Your task to perform on an android device: turn vacation reply on in the gmail app Image 0: 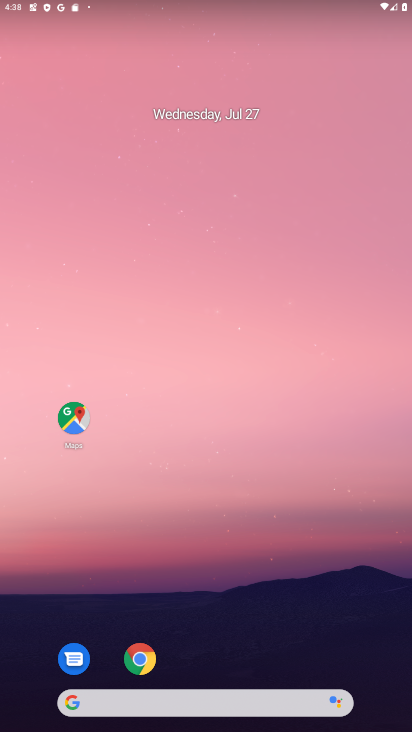
Step 0: drag from (295, 662) to (264, 52)
Your task to perform on an android device: turn vacation reply on in the gmail app Image 1: 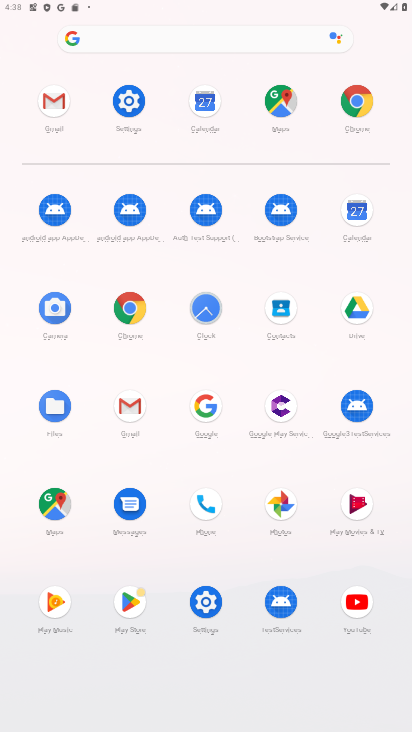
Step 1: click (55, 107)
Your task to perform on an android device: turn vacation reply on in the gmail app Image 2: 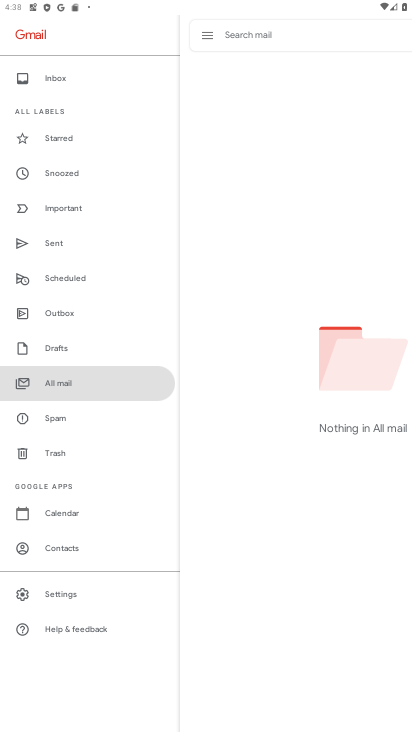
Step 2: click (71, 595)
Your task to perform on an android device: turn vacation reply on in the gmail app Image 3: 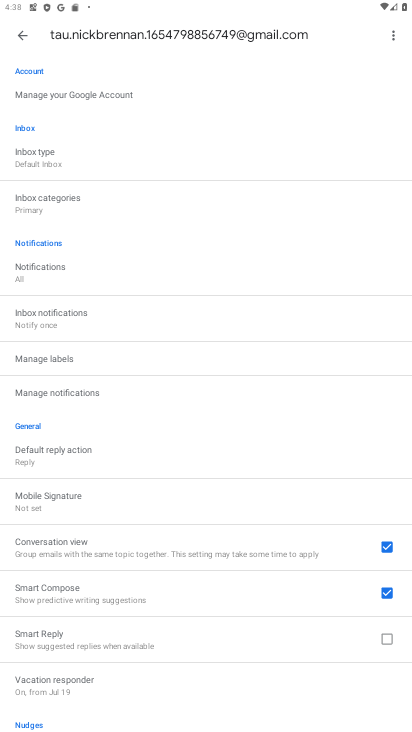
Step 3: drag from (166, 494) to (147, 307)
Your task to perform on an android device: turn vacation reply on in the gmail app Image 4: 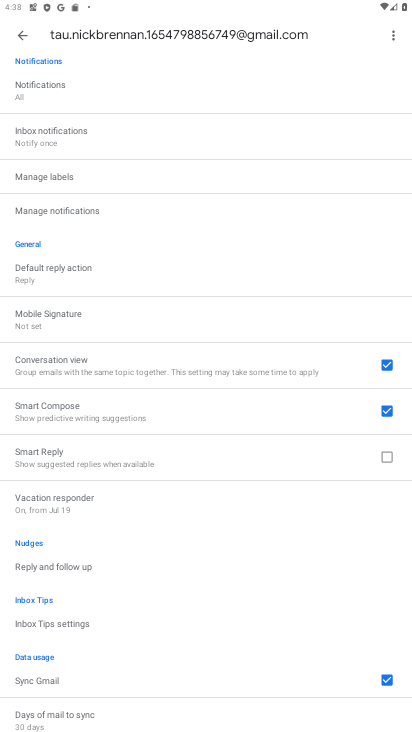
Step 4: click (167, 507)
Your task to perform on an android device: turn vacation reply on in the gmail app Image 5: 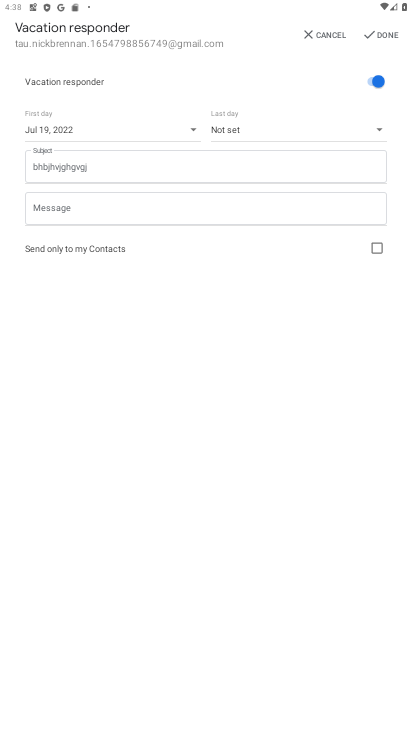
Step 5: click (358, 168)
Your task to perform on an android device: turn vacation reply on in the gmail app Image 6: 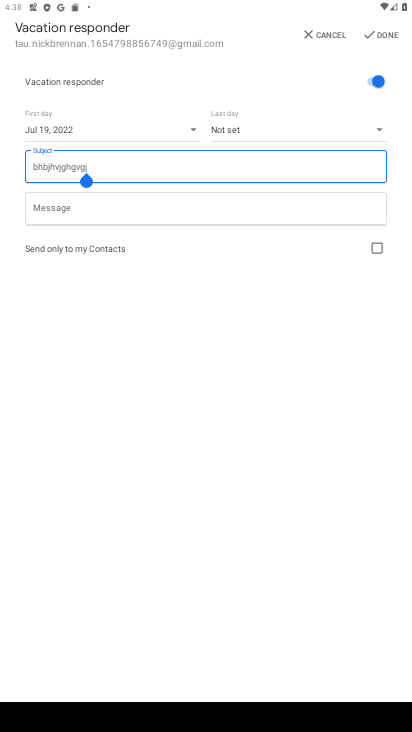
Step 6: type "bkhbk"
Your task to perform on an android device: turn vacation reply on in the gmail app Image 7: 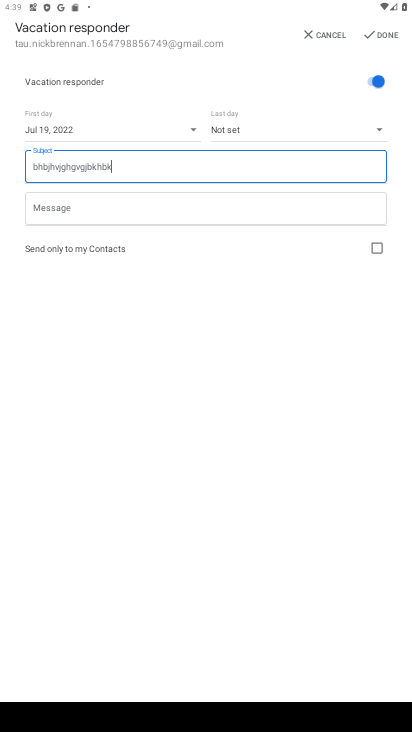
Step 7: click (387, 35)
Your task to perform on an android device: turn vacation reply on in the gmail app Image 8: 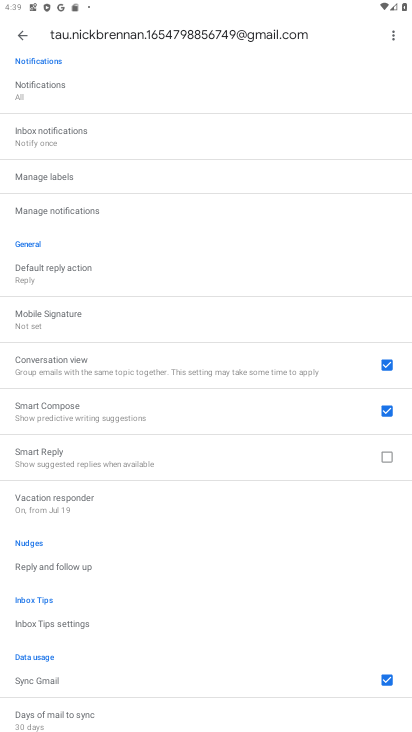
Step 8: task complete